Your task to perform on an android device: toggle show notifications on the lock screen Image 0: 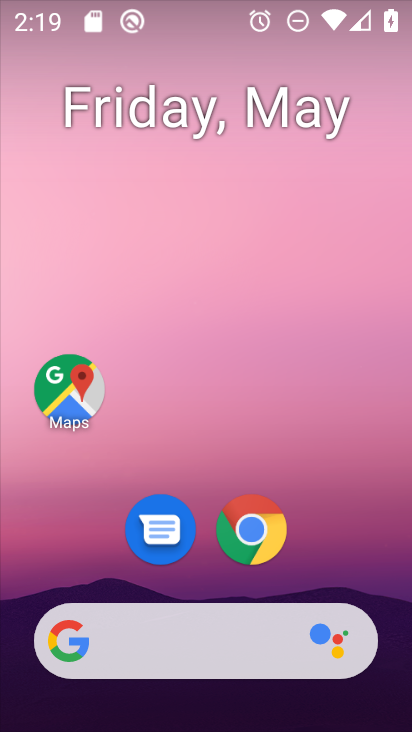
Step 0: drag from (401, 612) to (378, 244)
Your task to perform on an android device: toggle show notifications on the lock screen Image 1: 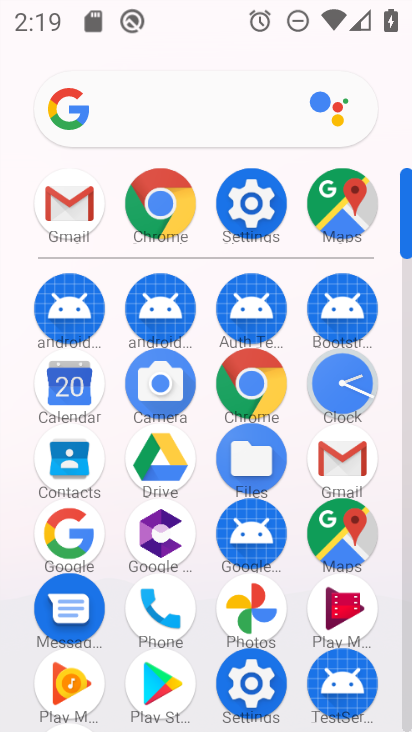
Step 1: click (231, 208)
Your task to perform on an android device: toggle show notifications on the lock screen Image 2: 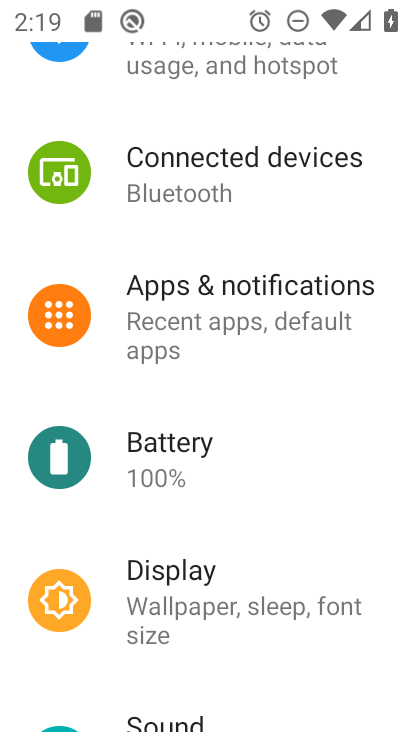
Step 2: drag from (314, 686) to (310, 277)
Your task to perform on an android device: toggle show notifications on the lock screen Image 3: 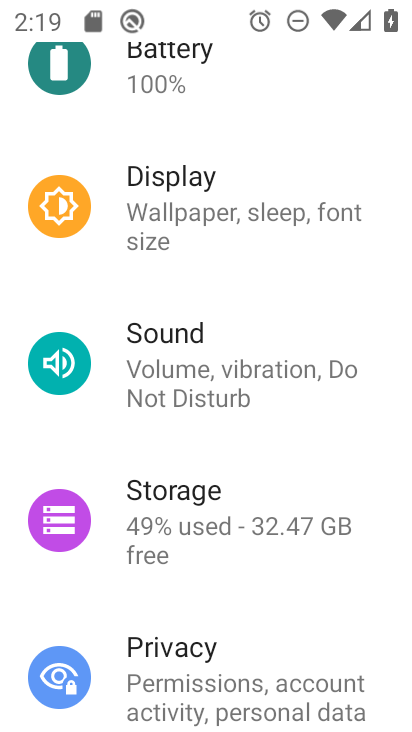
Step 3: drag from (346, 667) to (322, 251)
Your task to perform on an android device: toggle show notifications on the lock screen Image 4: 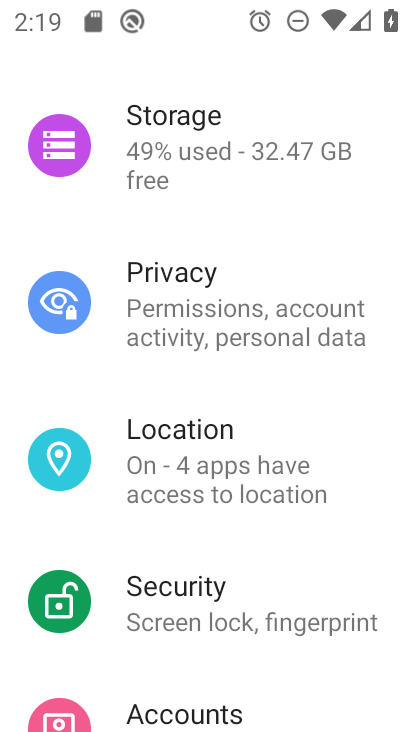
Step 4: drag from (293, 698) to (280, 431)
Your task to perform on an android device: toggle show notifications on the lock screen Image 5: 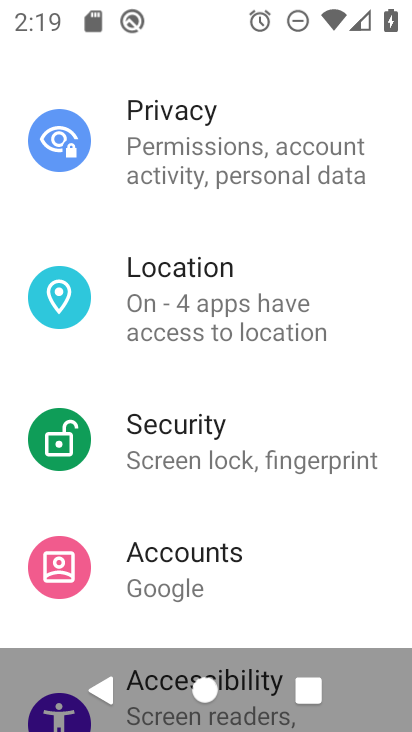
Step 5: drag from (279, 128) to (301, 659)
Your task to perform on an android device: toggle show notifications on the lock screen Image 6: 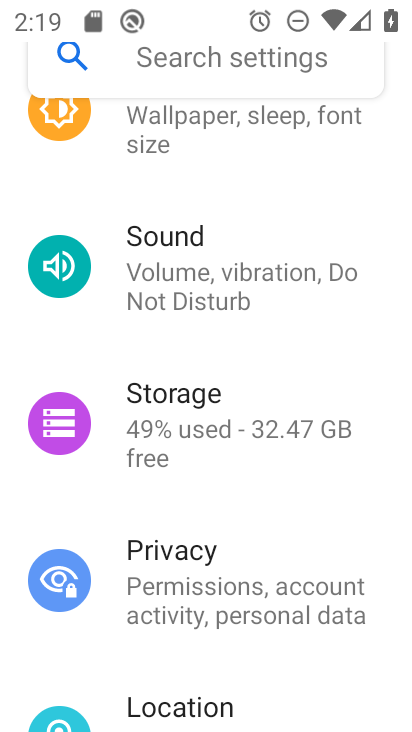
Step 6: drag from (242, 188) to (273, 576)
Your task to perform on an android device: toggle show notifications on the lock screen Image 7: 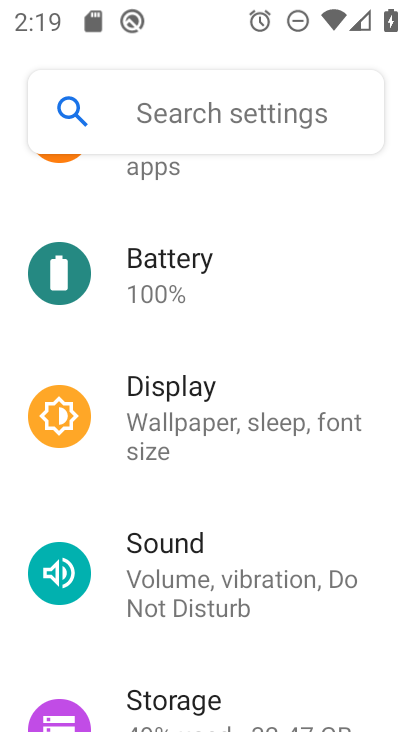
Step 7: drag from (251, 304) to (296, 719)
Your task to perform on an android device: toggle show notifications on the lock screen Image 8: 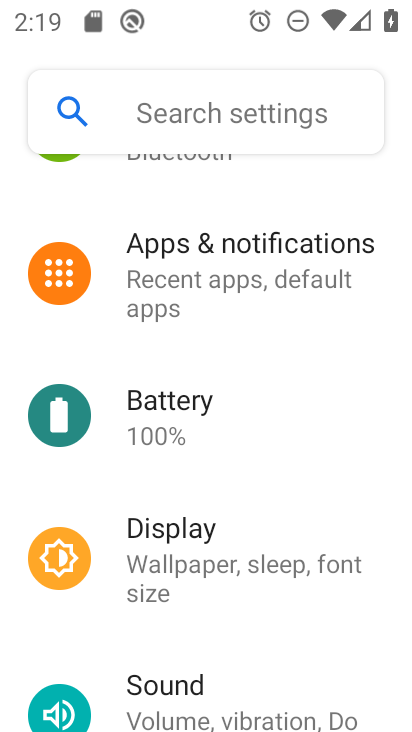
Step 8: click (177, 268)
Your task to perform on an android device: toggle show notifications on the lock screen Image 9: 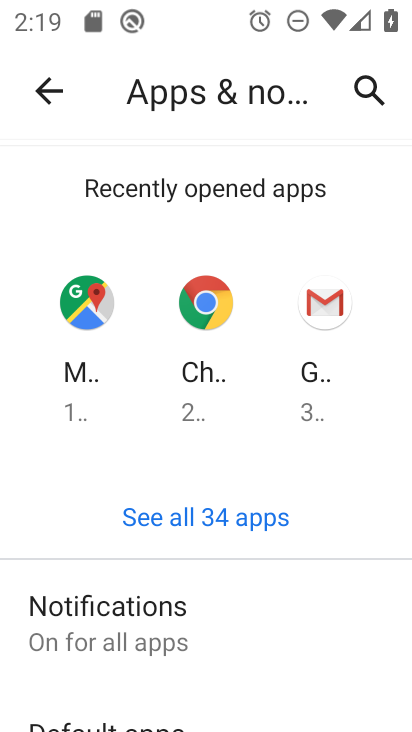
Step 9: drag from (259, 685) to (259, 271)
Your task to perform on an android device: toggle show notifications on the lock screen Image 10: 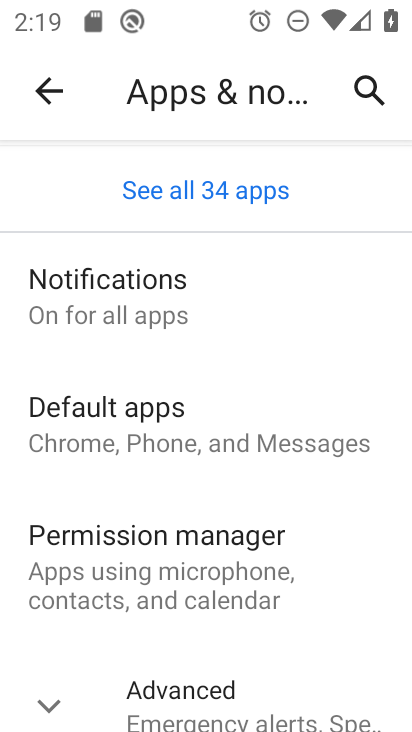
Step 10: click (112, 293)
Your task to perform on an android device: toggle show notifications on the lock screen Image 11: 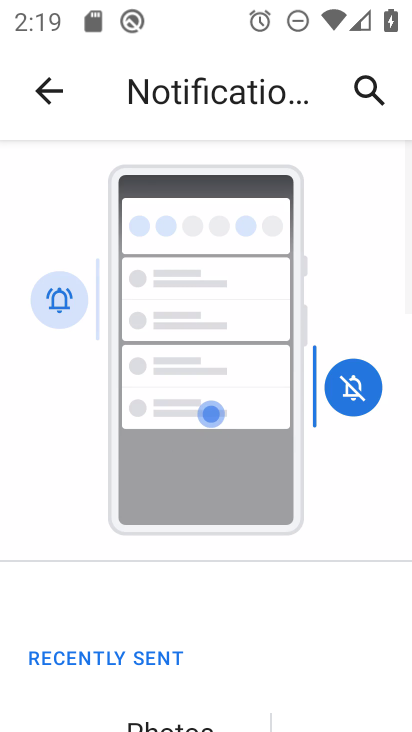
Step 11: drag from (273, 683) to (261, 238)
Your task to perform on an android device: toggle show notifications on the lock screen Image 12: 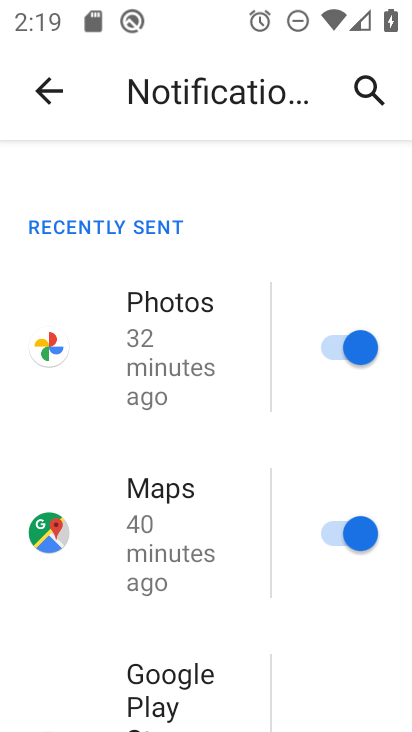
Step 12: drag from (272, 671) to (222, 198)
Your task to perform on an android device: toggle show notifications on the lock screen Image 13: 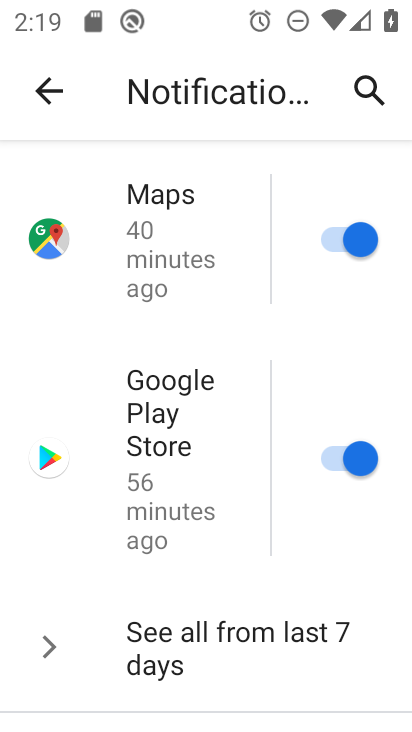
Step 13: drag from (299, 680) to (275, 256)
Your task to perform on an android device: toggle show notifications on the lock screen Image 14: 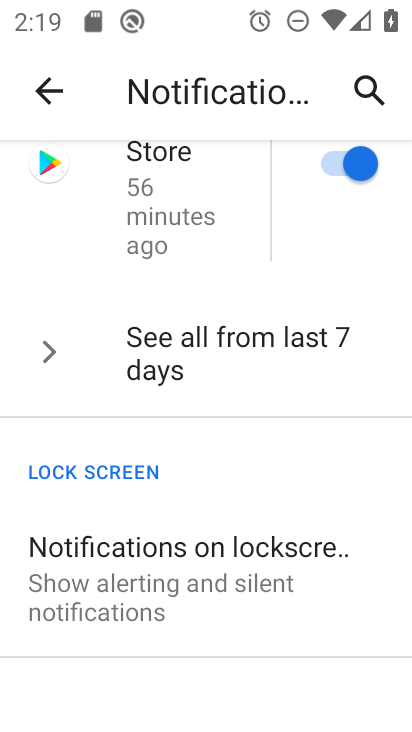
Step 14: click (162, 569)
Your task to perform on an android device: toggle show notifications on the lock screen Image 15: 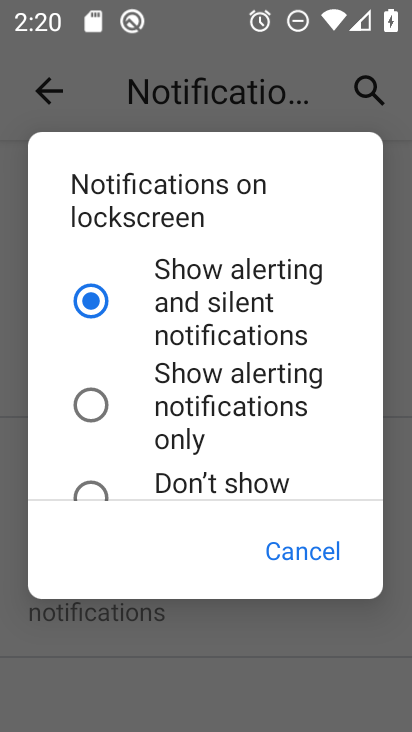
Step 15: click (104, 396)
Your task to perform on an android device: toggle show notifications on the lock screen Image 16: 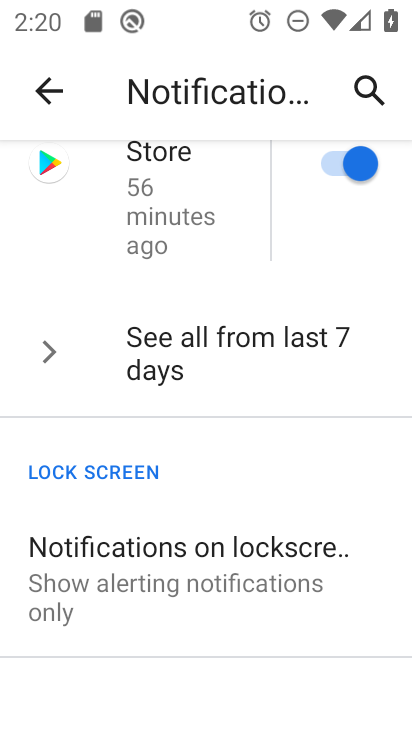
Step 16: task complete